Your task to perform on an android device: Open the web browser Image 0: 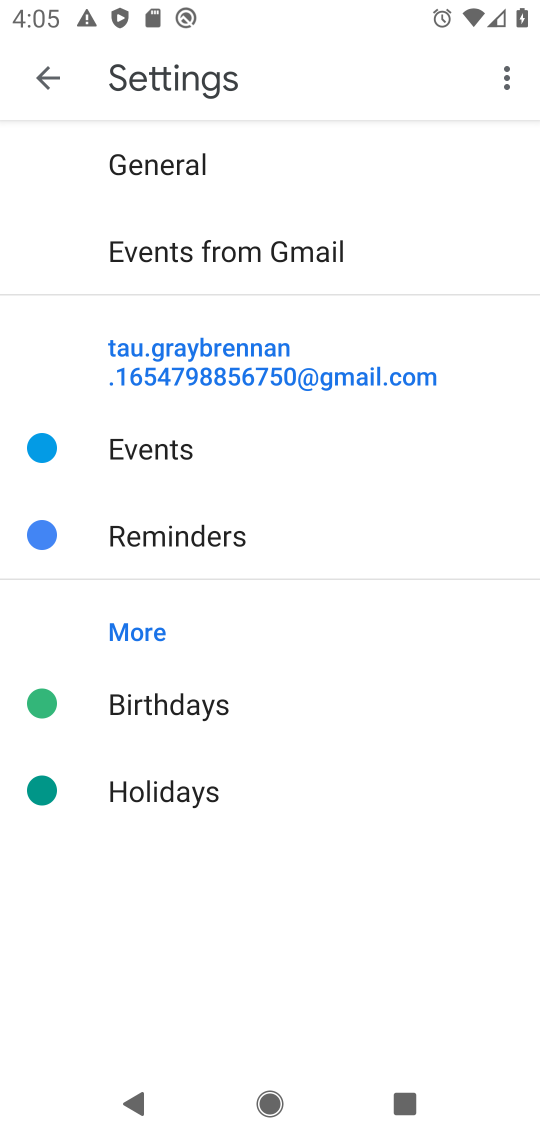
Step 0: press home button
Your task to perform on an android device: Open the web browser Image 1: 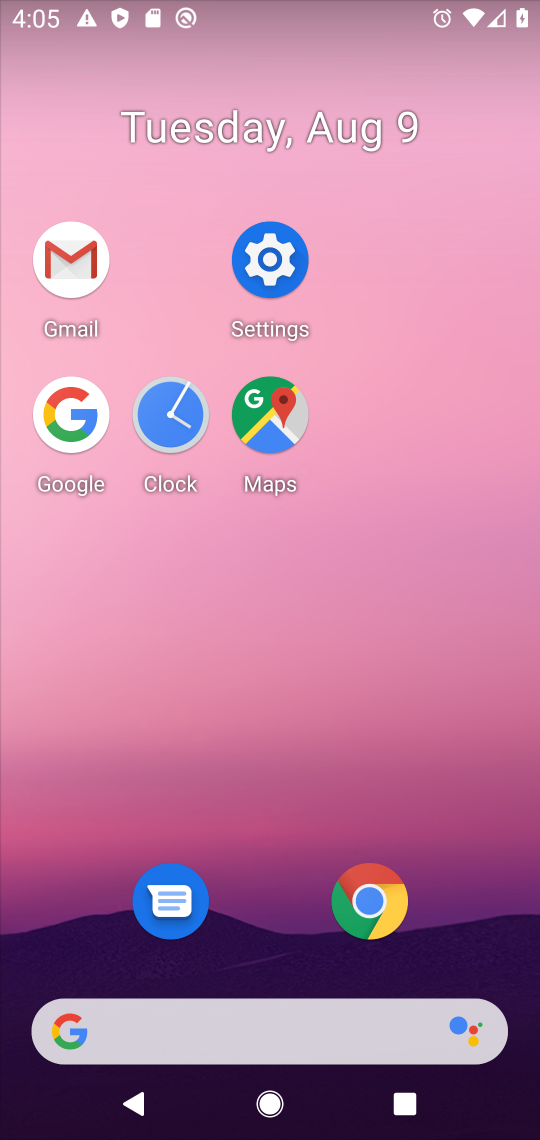
Step 1: click (353, 898)
Your task to perform on an android device: Open the web browser Image 2: 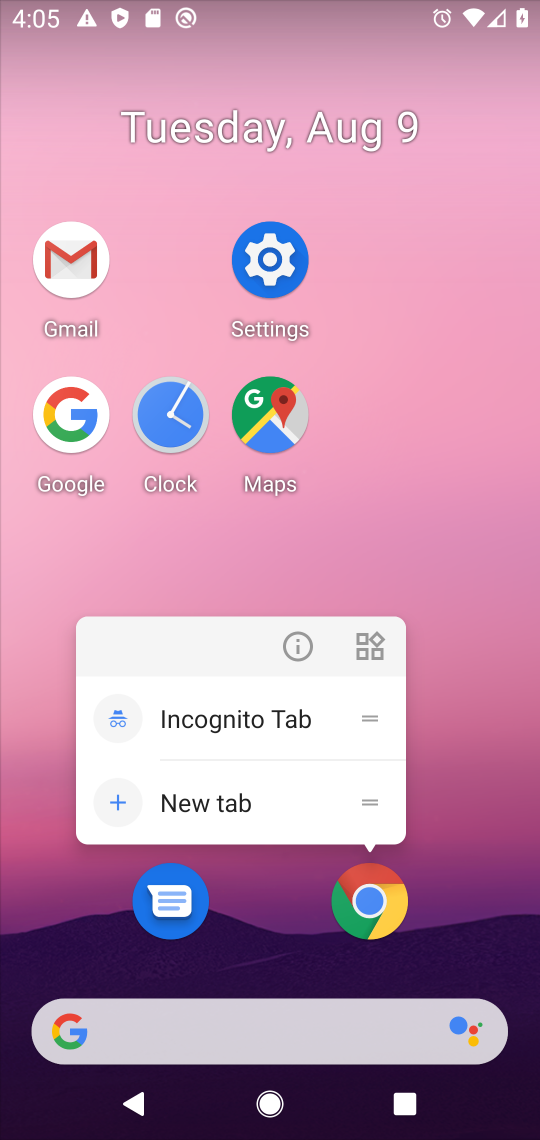
Step 2: click (353, 898)
Your task to perform on an android device: Open the web browser Image 3: 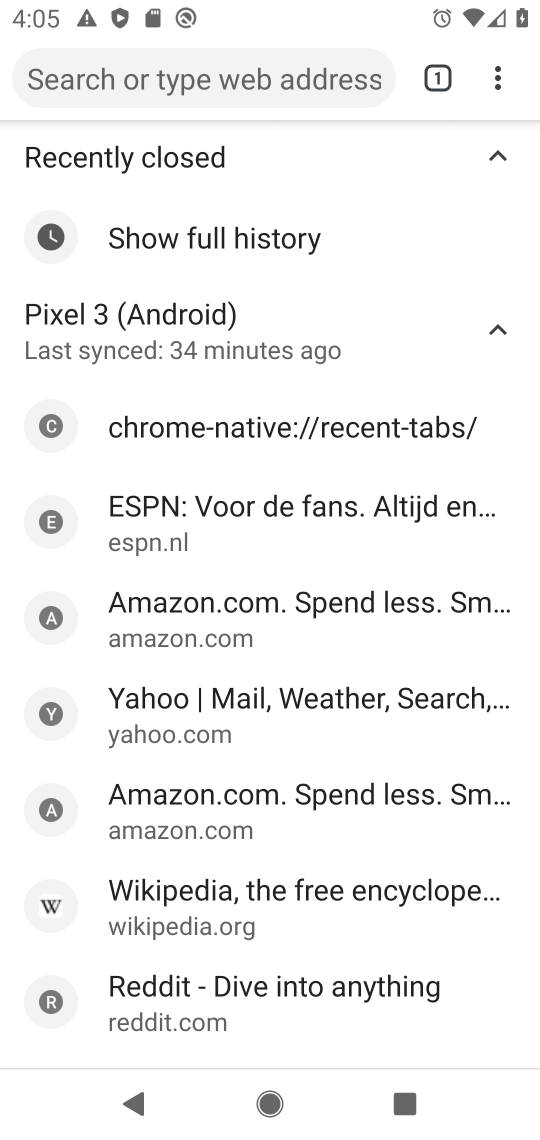
Step 3: task complete